Your task to perform on an android device: change your default location settings in chrome Image 0: 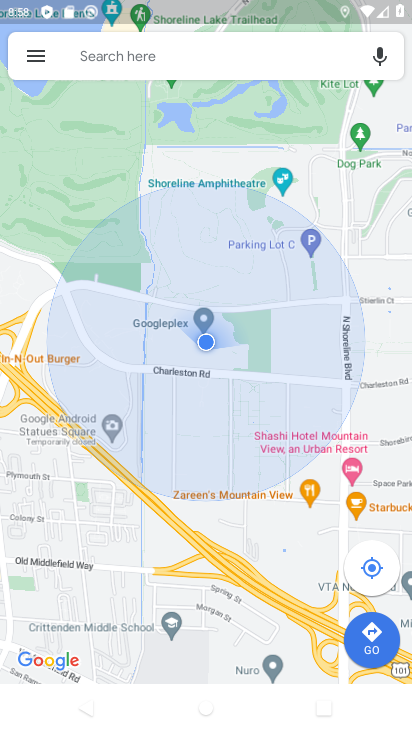
Step 0: press home button
Your task to perform on an android device: change your default location settings in chrome Image 1: 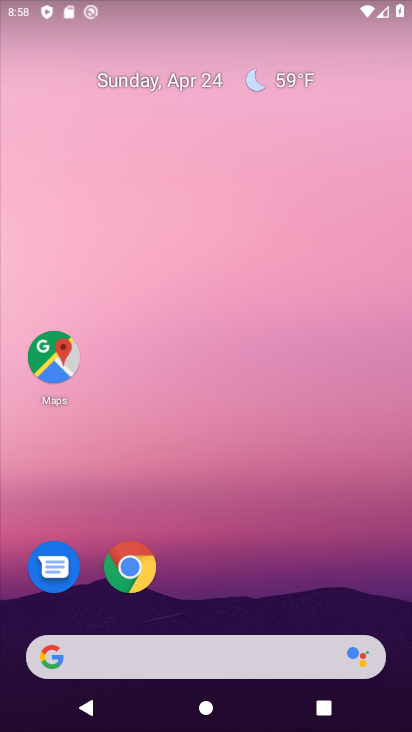
Step 1: click (131, 565)
Your task to perform on an android device: change your default location settings in chrome Image 2: 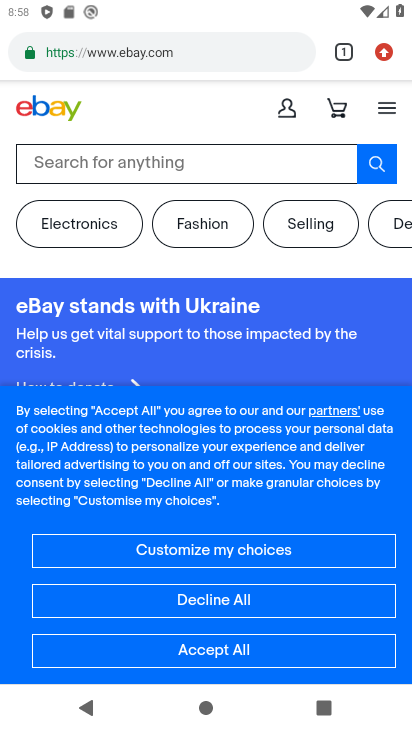
Step 2: click (382, 52)
Your task to perform on an android device: change your default location settings in chrome Image 3: 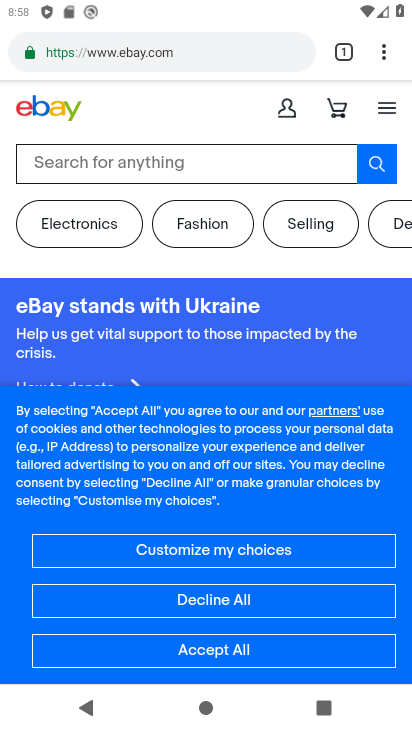
Step 3: click (382, 53)
Your task to perform on an android device: change your default location settings in chrome Image 4: 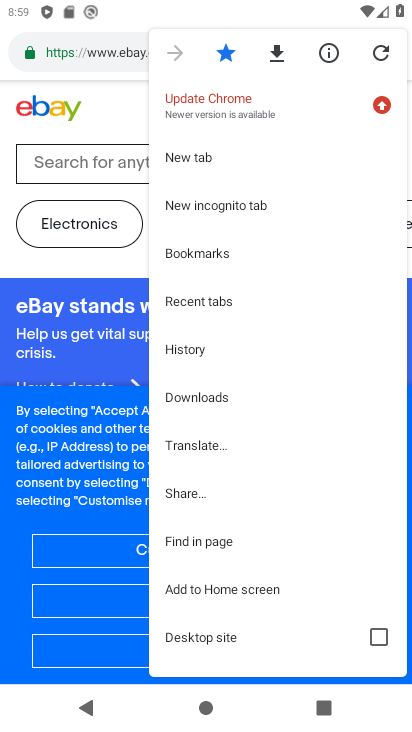
Step 4: drag from (348, 614) to (368, 214)
Your task to perform on an android device: change your default location settings in chrome Image 5: 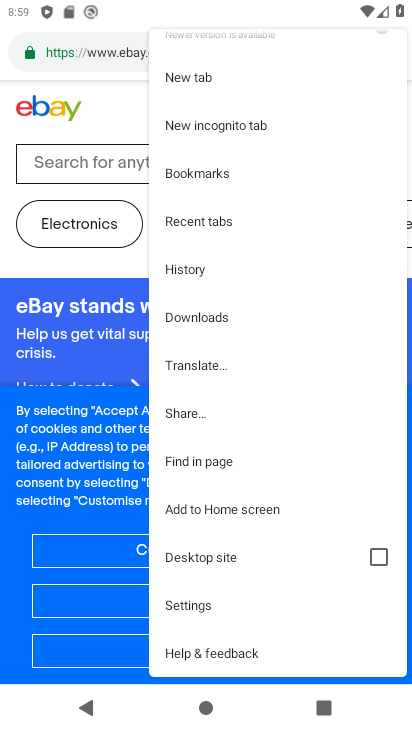
Step 5: click (183, 604)
Your task to perform on an android device: change your default location settings in chrome Image 6: 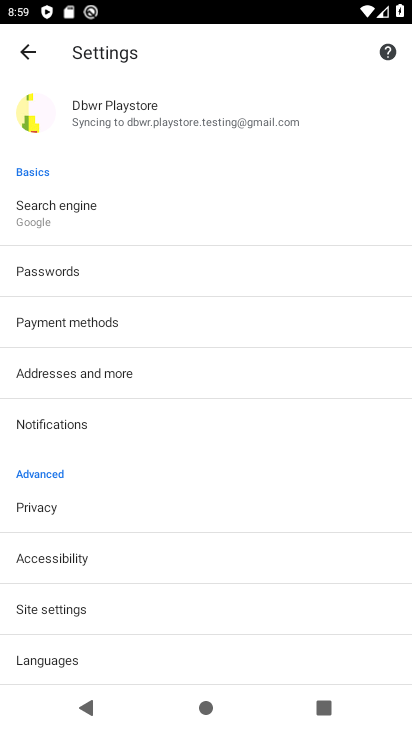
Step 6: drag from (200, 655) to (237, 316)
Your task to perform on an android device: change your default location settings in chrome Image 7: 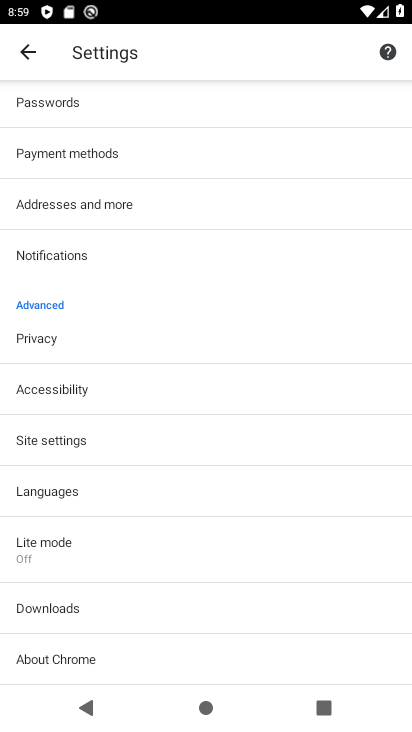
Step 7: click (51, 441)
Your task to perform on an android device: change your default location settings in chrome Image 8: 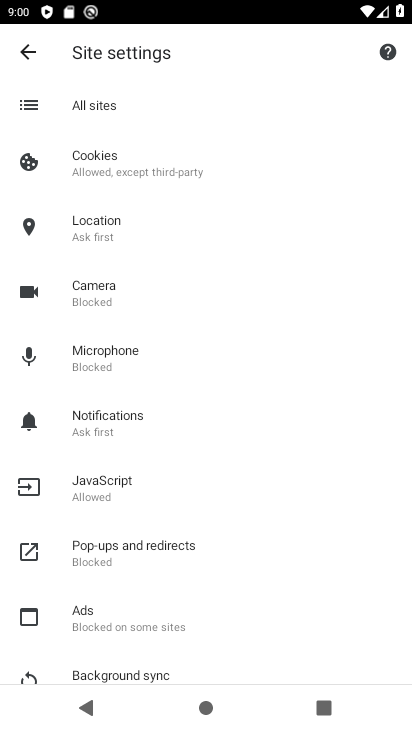
Step 8: click (94, 217)
Your task to perform on an android device: change your default location settings in chrome Image 9: 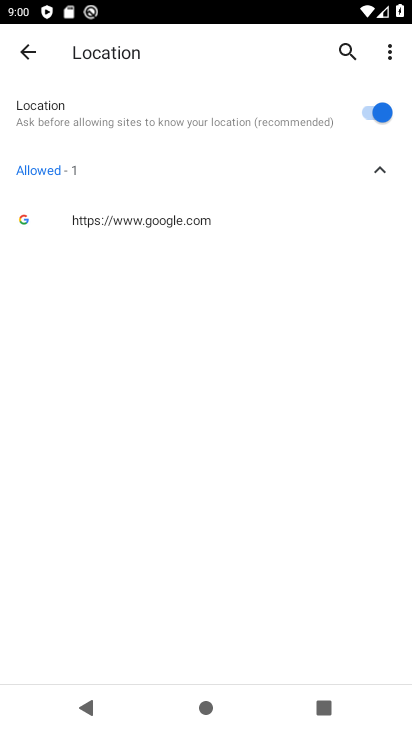
Step 9: click (363, 109)
Your task to perform on an android device: change your default location settings in chrome Image 10: 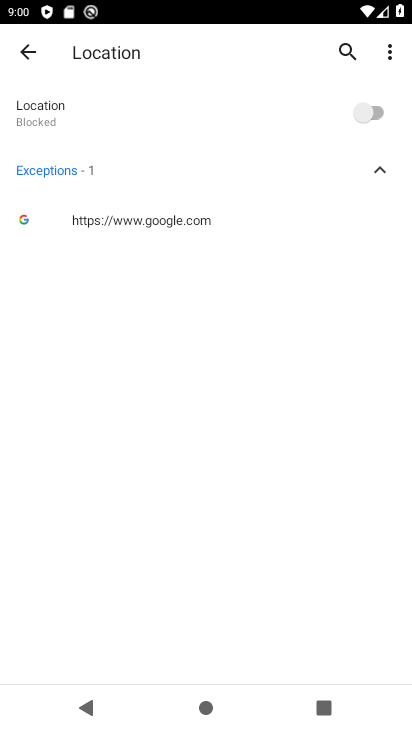
Step 10: task complete